Your task to perform on an android device: Open battery settings Image 0: 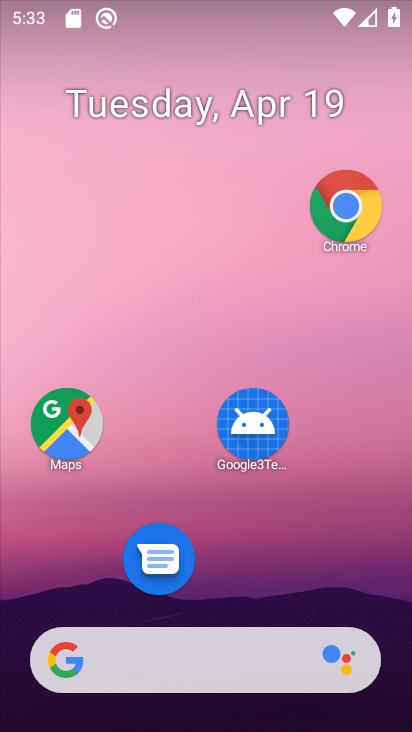
Step 0: drag from (253, 630) to (214, 5)
Your task to perform on an android device: Open battery settings Image 1: 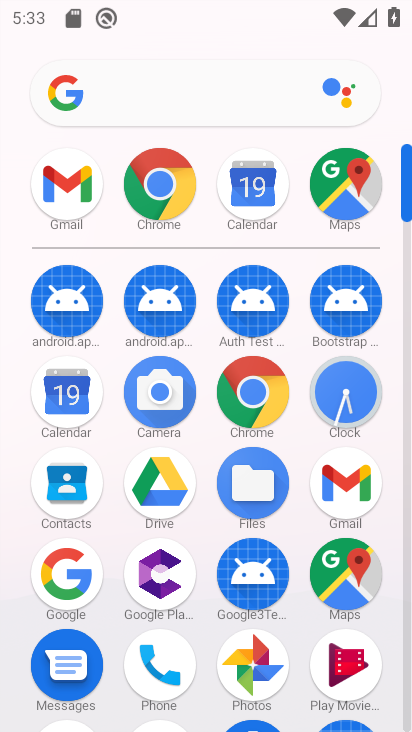
Step 1: drag from (237, 642) to (273, 449)
Your task to perform on an android device: Open battery settings Image 2: 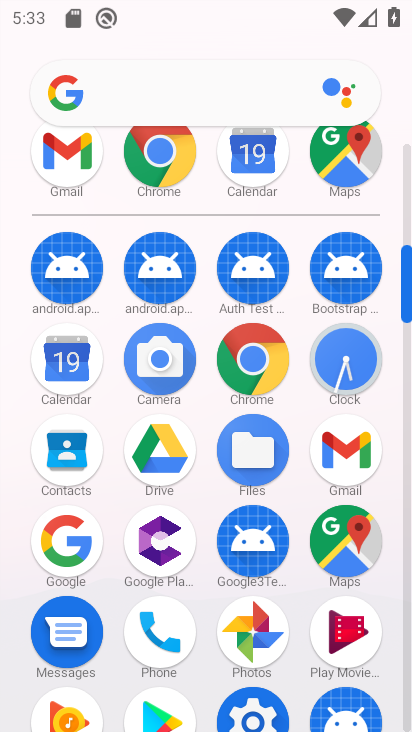
Step 2: click (274, 701)
Your task to perform on an android device: Open battery settings Image 3: 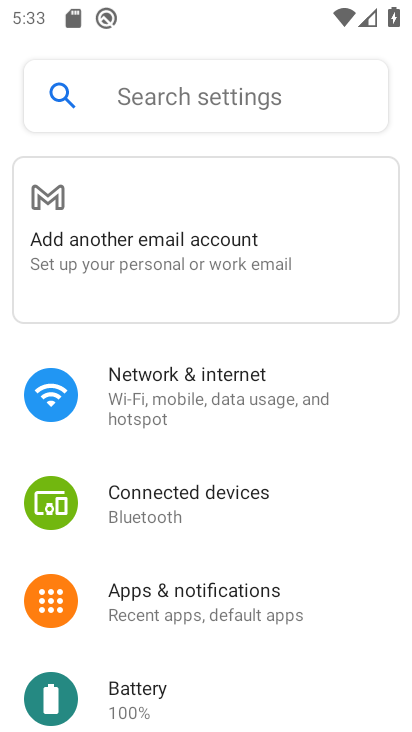
Step 3: click (184, 692)
Your task to perform on an android device: Open battery settings Image 4: 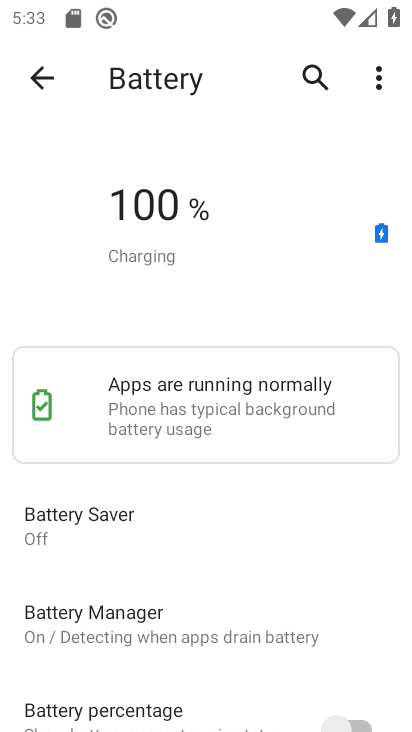
Step 4: task complete